Your task to perform on an android device: change the upload size in google photos Image 0: 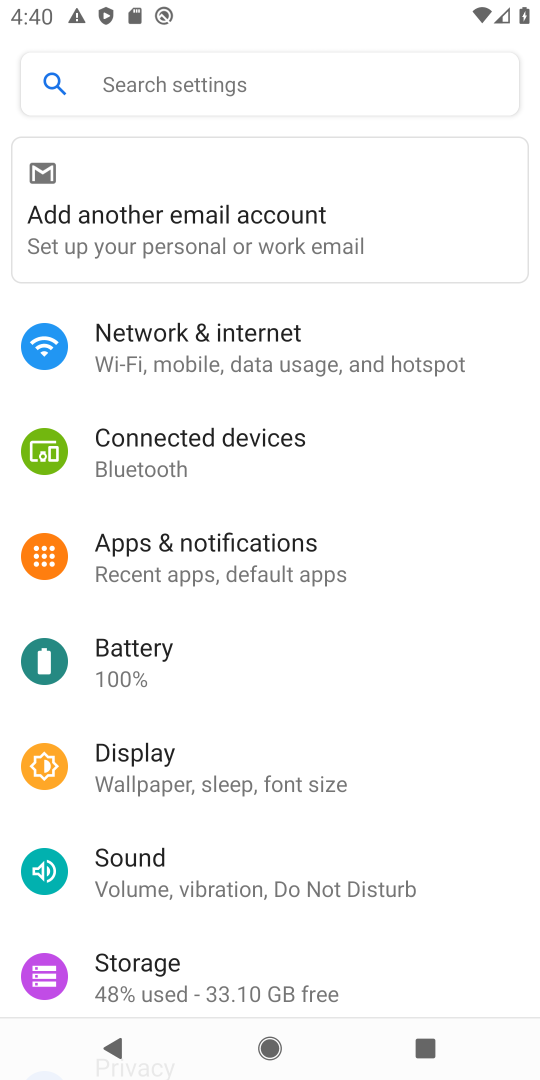
Step 0: press home button
Your task to perform on an android device: change the upload size in google photos Image 1: 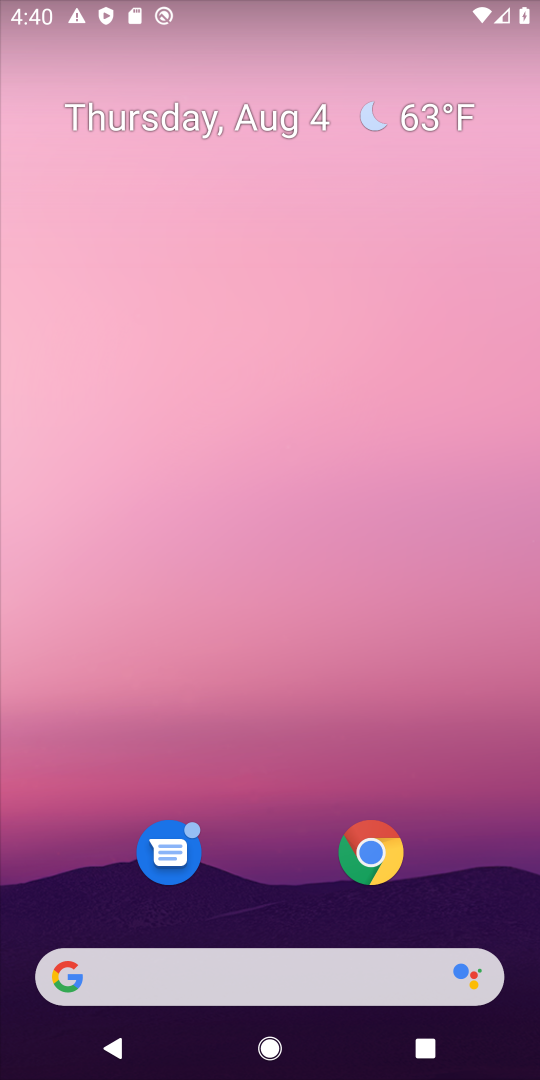
Step 1: drag from (273, 883) to (270, 160)
Your task to perform on an android device: change the upload size in google photos Image 2: 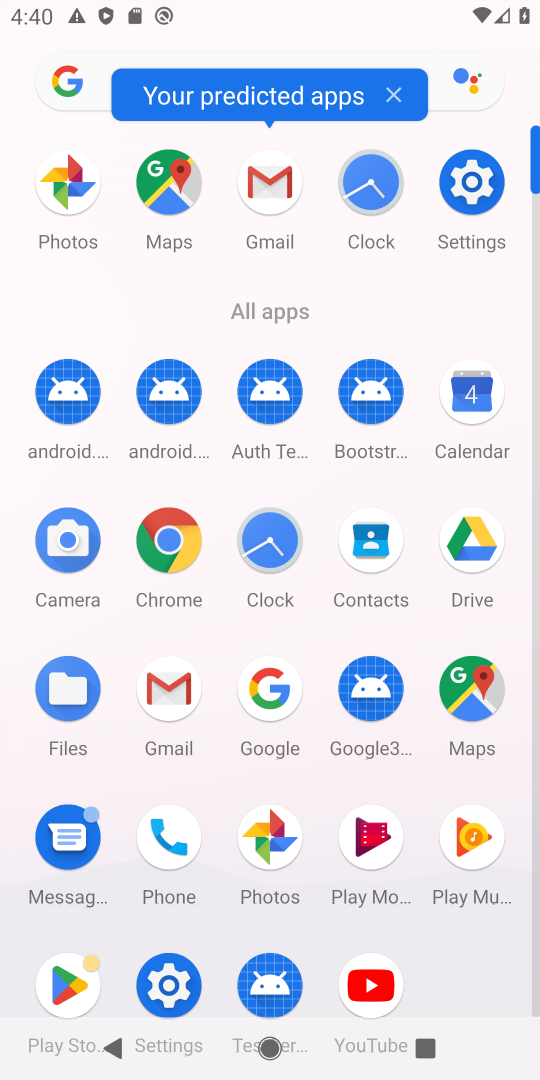
Step 2: click (270, 845)
Your task to perform on an android device: change the upload size in google photos Image 3: 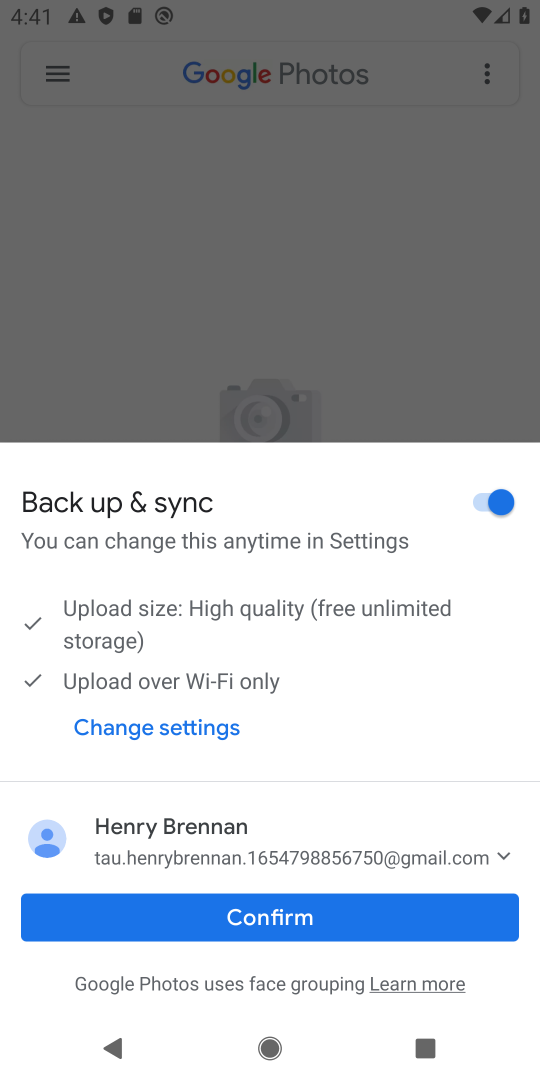
Step 3: click (279, 922)
Your task to perform on an android device: change the upload size in google photos Image 4: 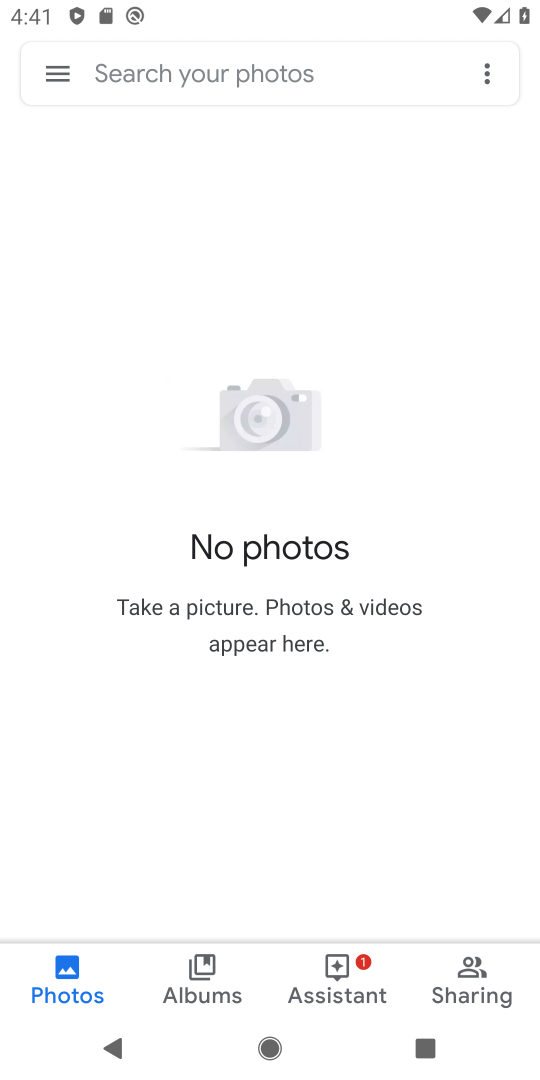
Step 4: click (56, 71)
Your task to perform on an android device: change the upload size in google photos Image 5: 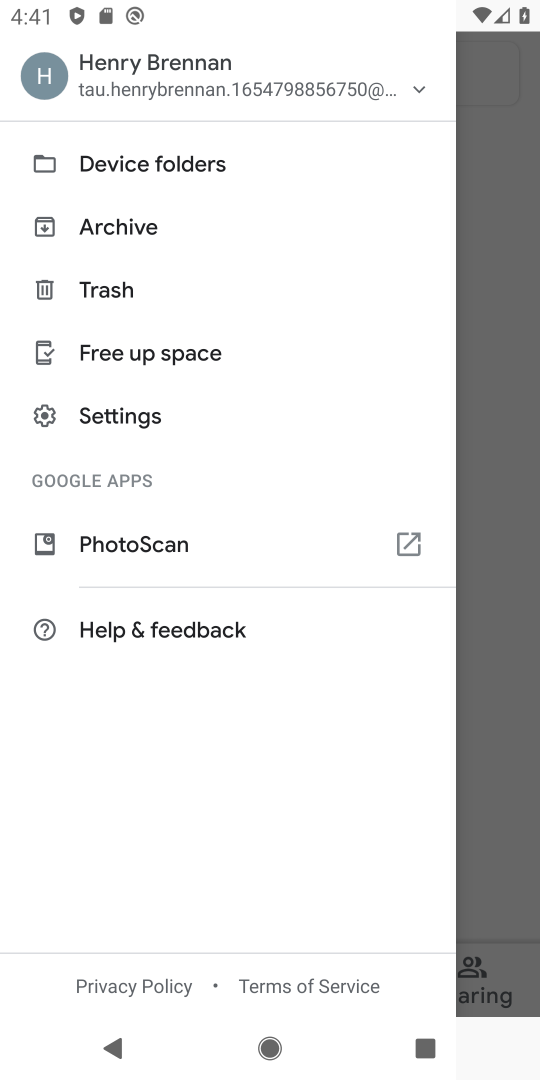
Step 5: click (144, 416)
Your task to perform on an android device: change the upload size in google photos Image 6: 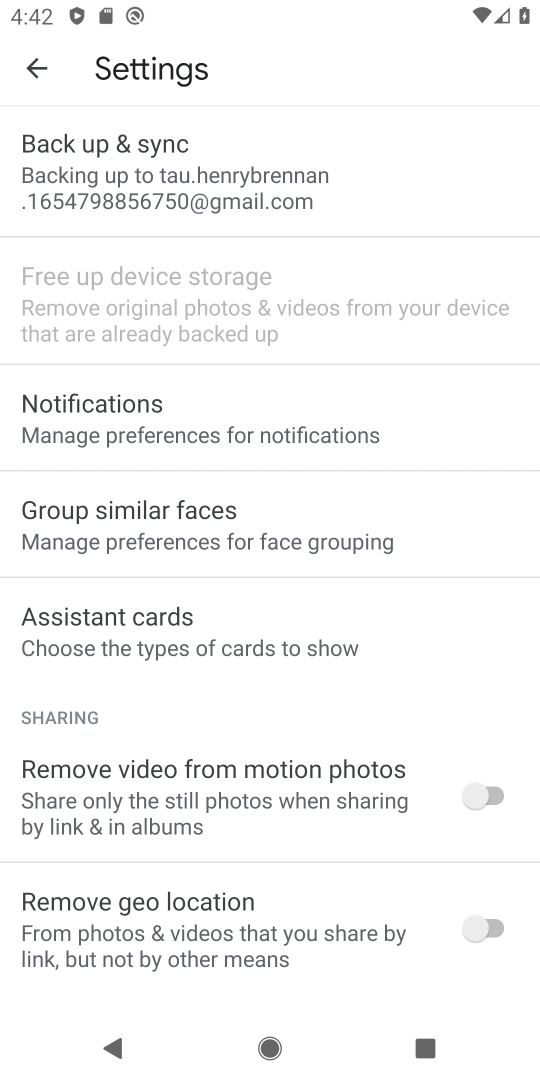
Step 6: drag from (103, 688) to (138, 386)
Your task to perform on an android device: change the upload size in google photos Image 7: 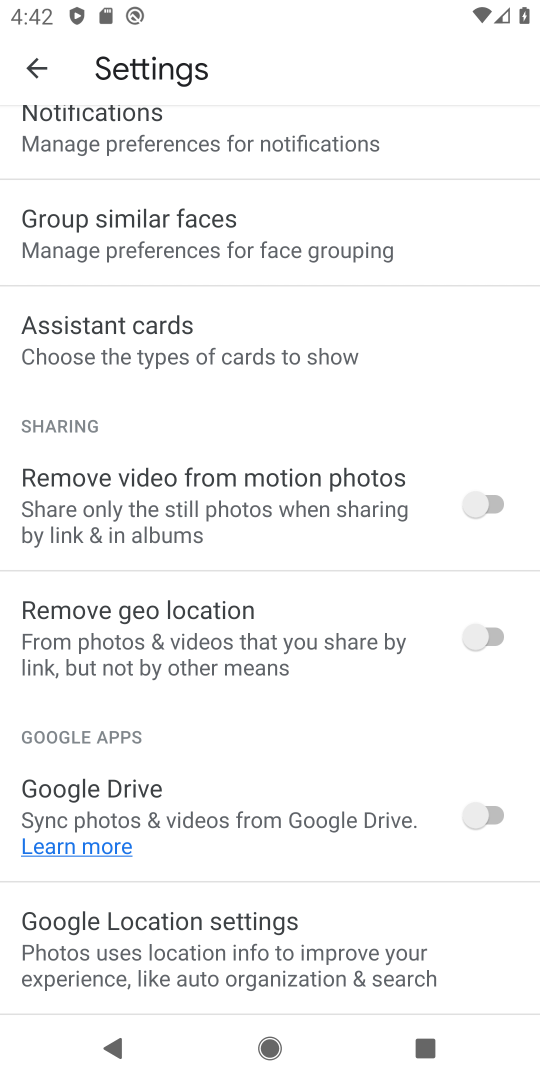
Step 7: drag from (228, 195) to (250, 826)
Your task to perform on an android device: change the upload size in google photos Image 8: 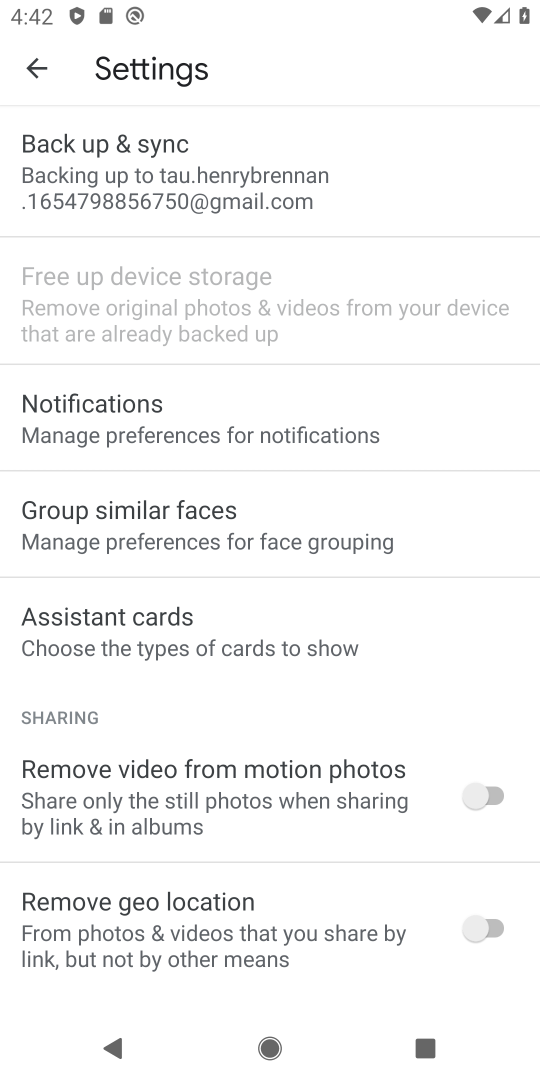
Step 8: click (146, 188)
Your task to perform on an android device: change the upload size in google photos Image 9: 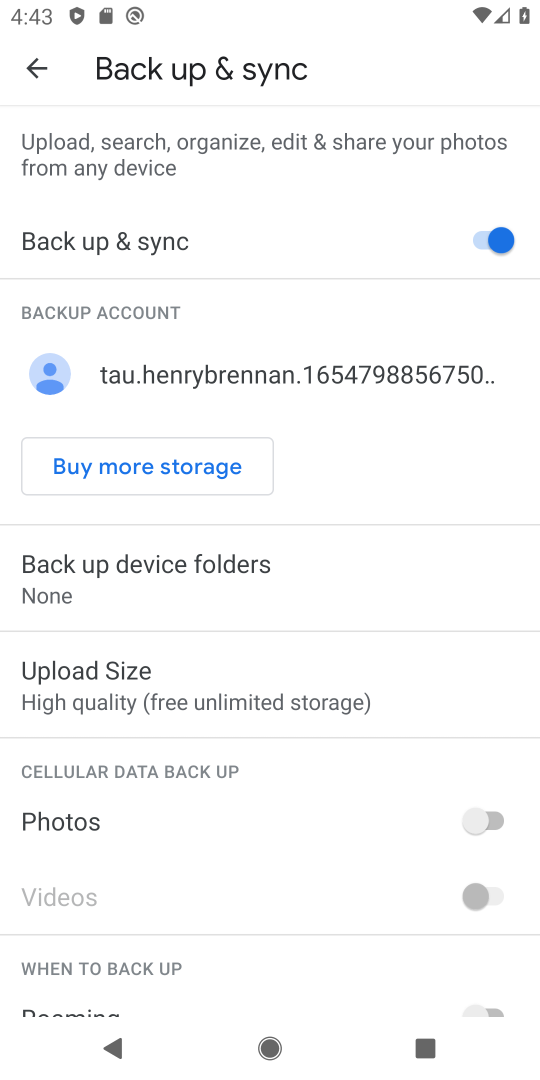
Step 9: click (117, 680)
Your task to perform on an android device: change the upload size in google photos Image 10: 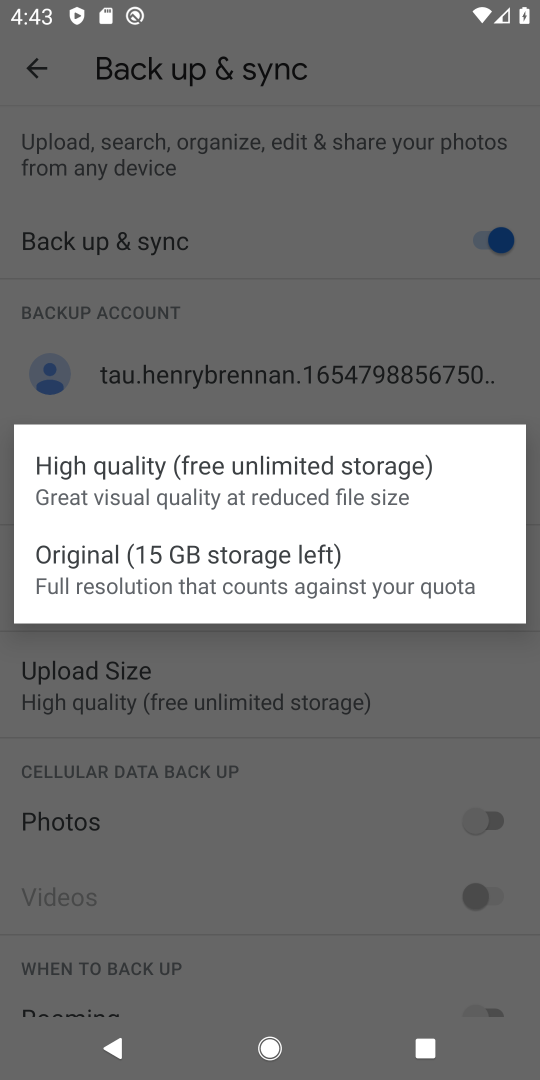
Step 10: click (225, 578)
Your task to perform on an android device: change the upload size in google photos Image 11: 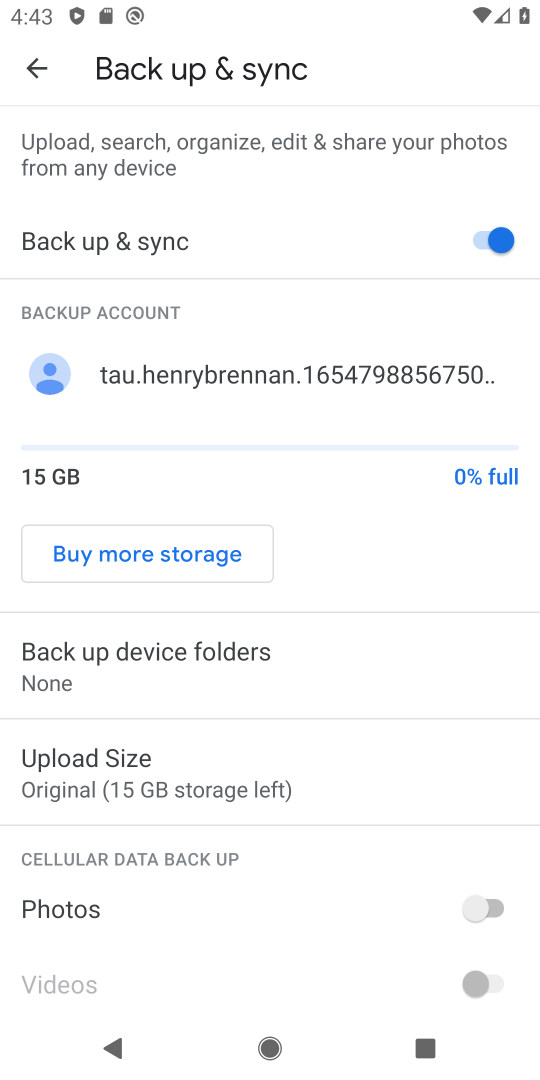
Step 11: task complete